Your task to perform on an android device: search for starred emails in the gmail app Image 0: 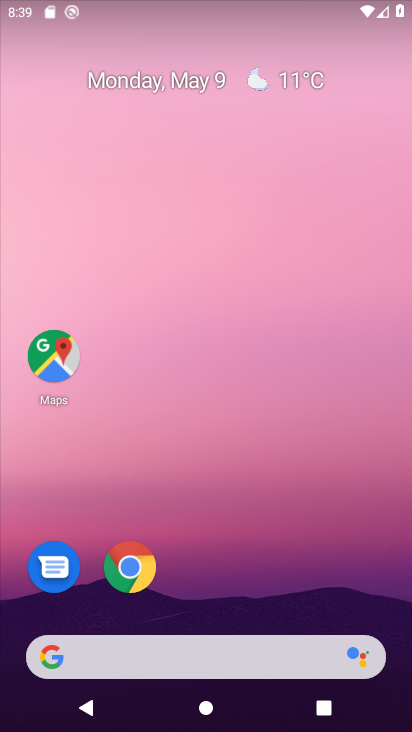
Step 0: drag from (288, 541) to (279, 58)
Your task to perform on an android device: search for starred emails in the gmail app Image 1: 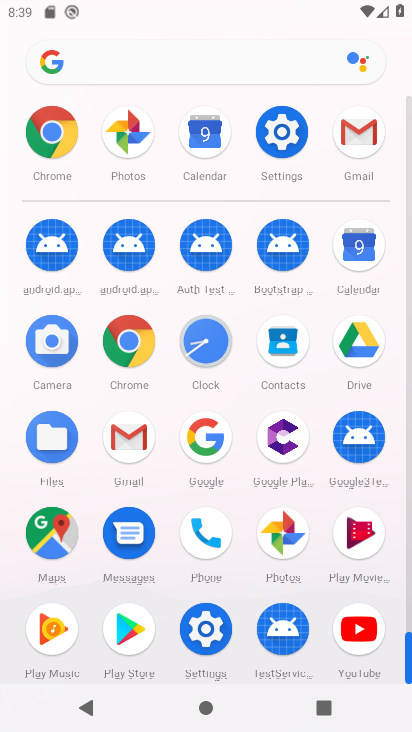
Step 1: click (354, 124)
Your task to perform on an android device: search for starred emails in the gmail app Image 2: 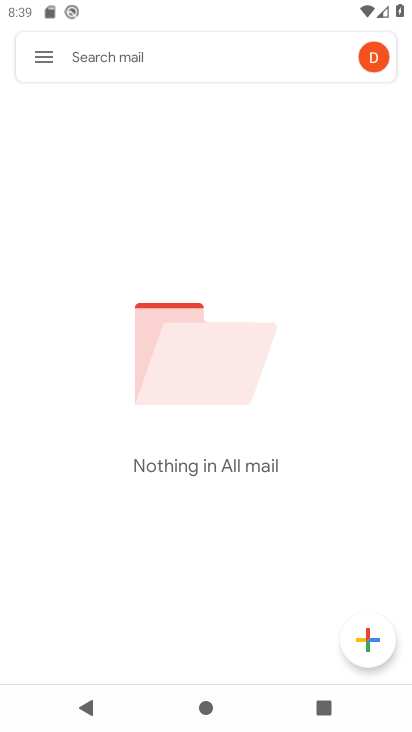
Step 2: click (37, 49)
Your task to perform on an android device: search for starred emails in the gmail app Image 3: 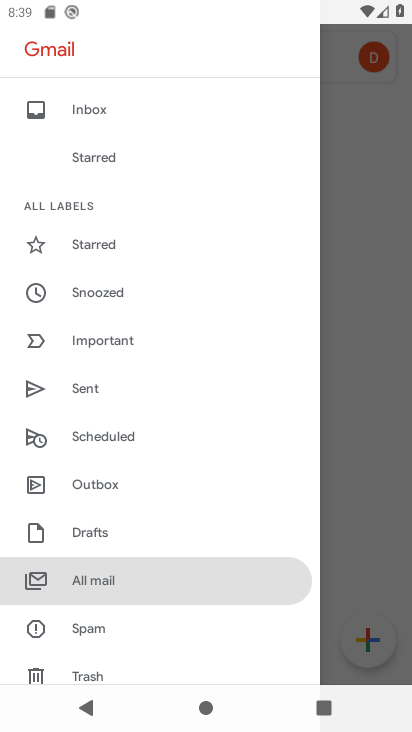
Step 3: click (91, 239)
Your task to perform on an android device: search for starred emails in the gmail app Image 4: 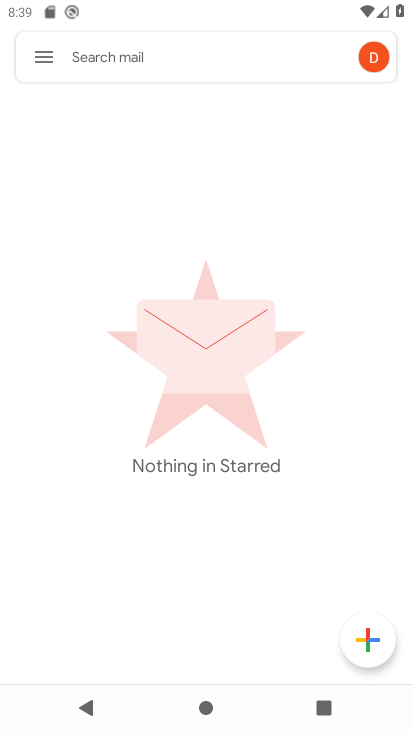
Step 4: task complete